Your task to perform on an android device: open a new tab in the chrome app Image 0: 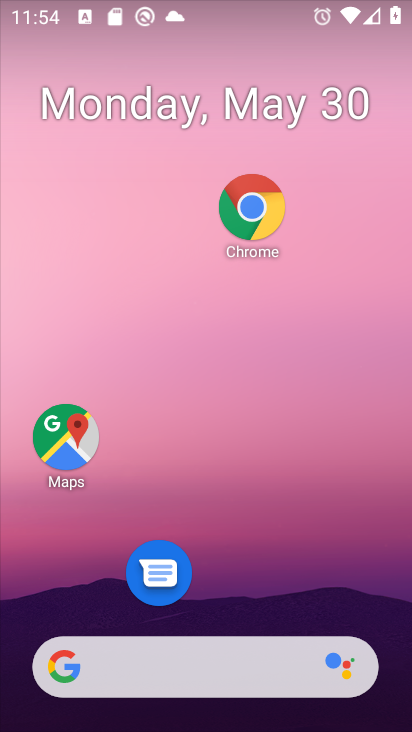
Step 0: drag from (221, 659) to (240, 51)
Your task to perform on an android device: open a new tab in the chrome app Image 1: 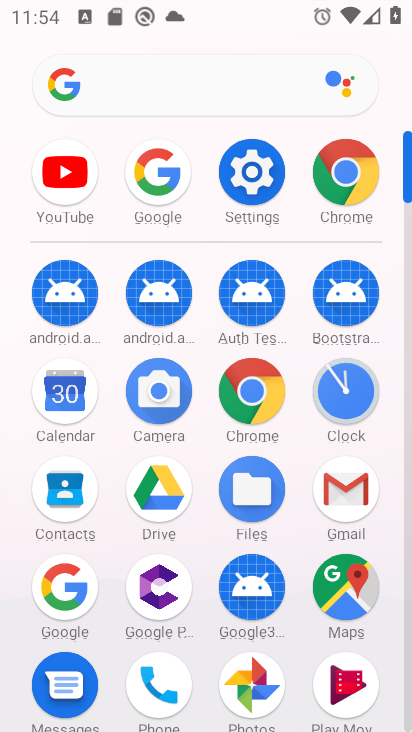
Step 1: click (340, 195)
Your task to perform on an android device: open a new tab in the chrome app Image 2: 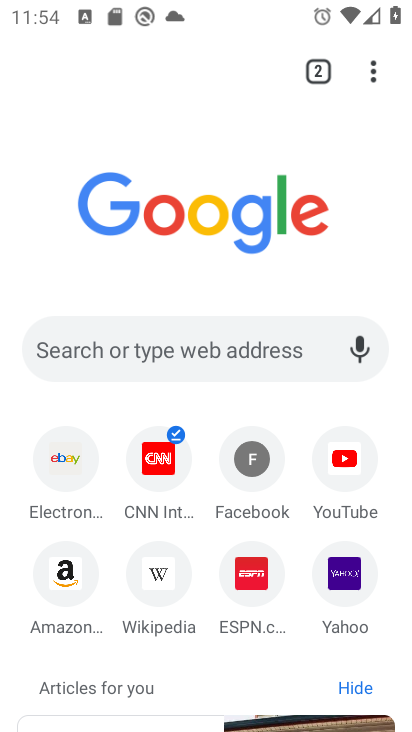
Step 2: drag from (319, 68) to (304, 347)
Your task to perform on an android device: open a new tab in the chrome app Image 3: 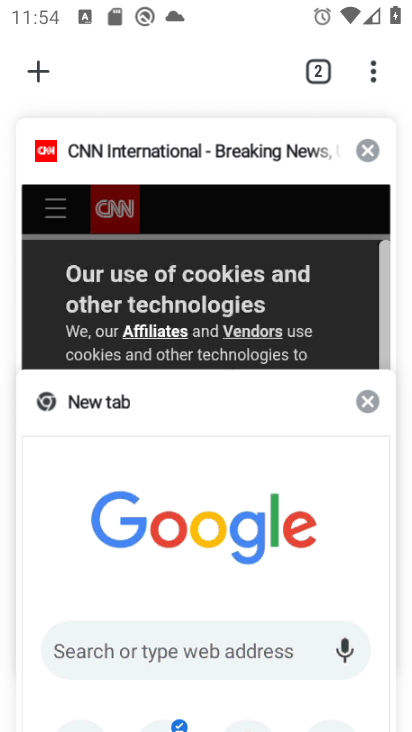
Step 3: click (37, 77)
Your task to perform on an android device: open a new tab in the chrome app Image 4: 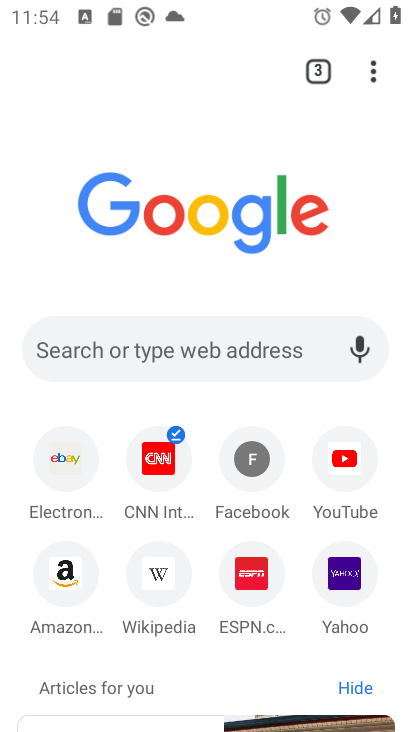
Step 4: task complete